Your task to perform on an android device: Search for the best rated desk chair on Article.com Image 0: 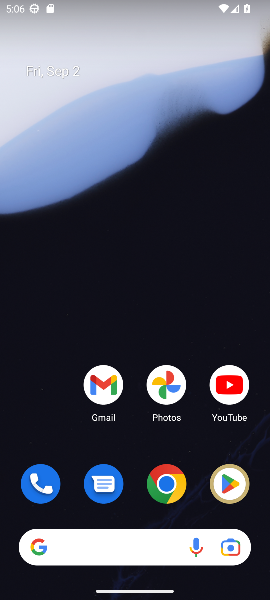
Step 0: click (163, 488)
Your task to perform on an android device: Search for the best rated desk chair on Article.com Image 1: 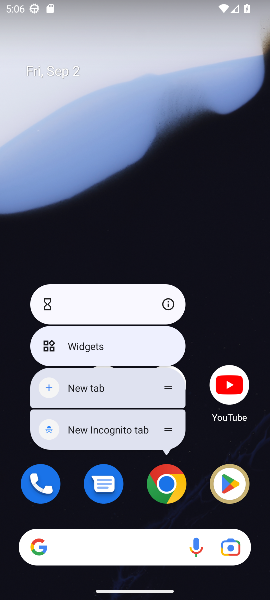
Step 1: click (169, 487)
Your task to perform on an android device: Search for the best rated desk chair on Article.com Image 2: 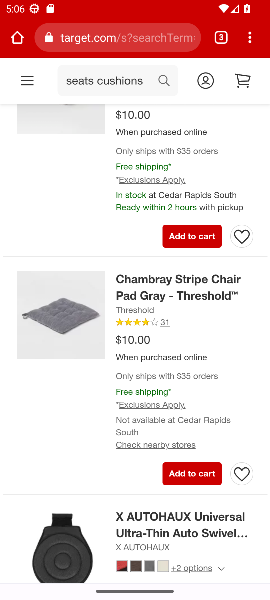
Step 2: click (126, 37)
Your task to perform on an android device: Search for the best rated desk chair on Article.com Image 3: 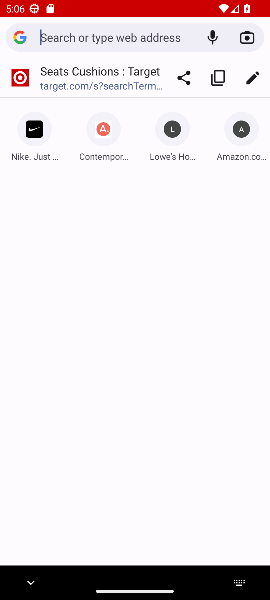
Step 3: type " Article.com"
Your task to perform on an android device: Search for the best rated desk chair on Article.com Image 4: 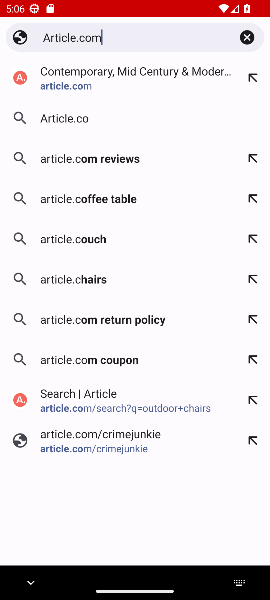
Step 4: press enter
Your task to perform on an android device: Search for the best rated desk chair on Article.com Image 5: 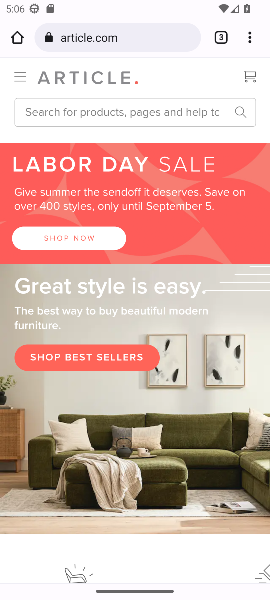
Step 5: click (148, 112)
Your task to perform on an android device: Search for the best rated desk chair on Article.com Image 6: 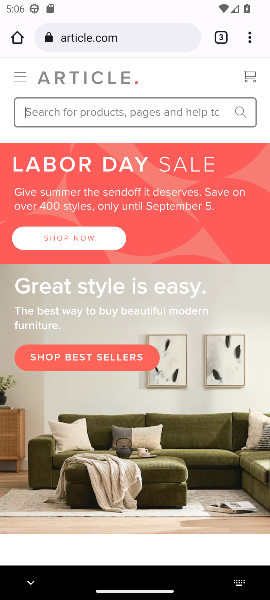
Step 6: type "desk chair "
Your task to perform on an android device: Search for the best rated desk chair on Article.com Image 7: 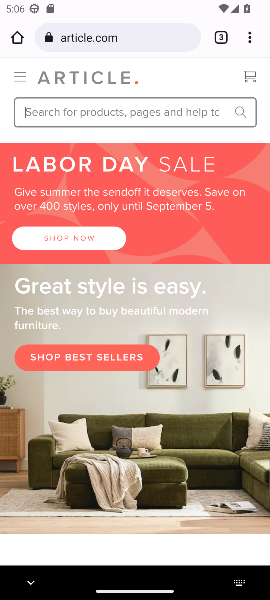
Step 7: press enter
Your task to perform on an android device: Search for the best rated desk chair on Article.com Image 8: 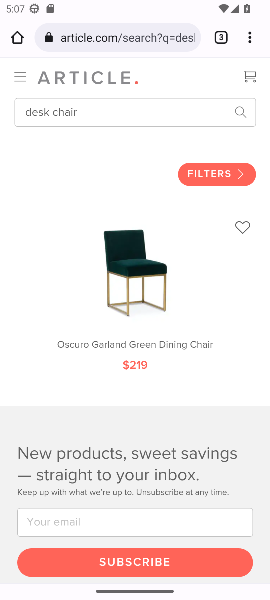
Step 8: task complete